Your task to perform on an android device: move a message to another label in the gmail app Image 0: 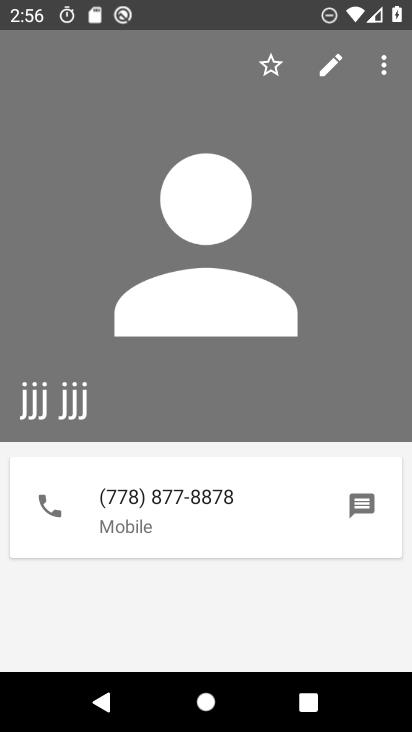
Step 0: press home button
Your task to perform on an android device: move a message to another label in the gmail app Image 1: 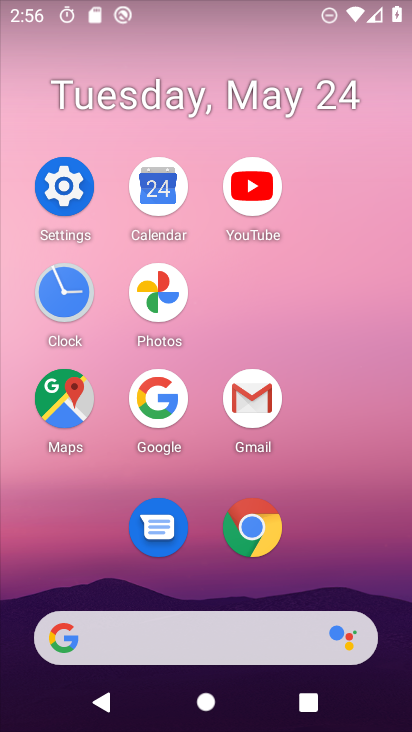
Step 1: click (256, 398)
Your task to perform on an android device: move a message to another label in the gmail app Image 2: 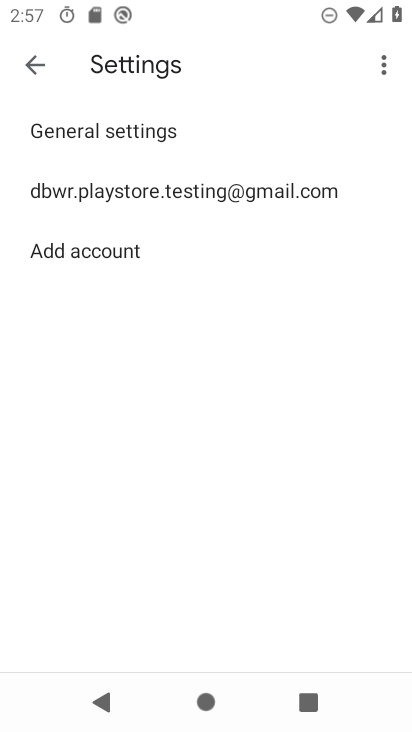
Step 2: click (42, 59)
Your task to perform on an android device: move a message to another label in the gmail app Image 3: 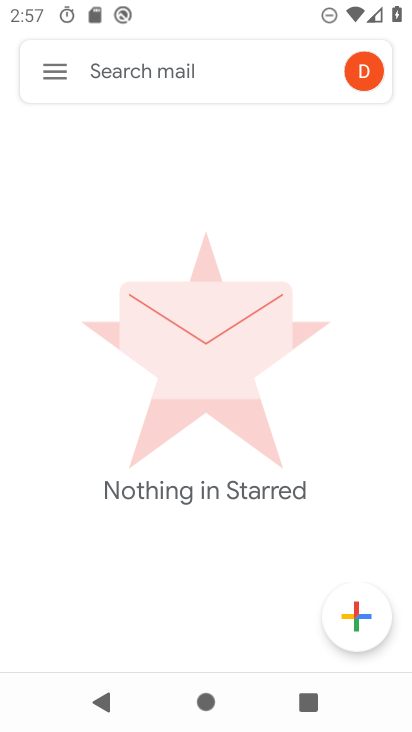
Step 3: click (68, 84)
Your task to perform on an android device: move a message to another label in the gmail app Image 4: 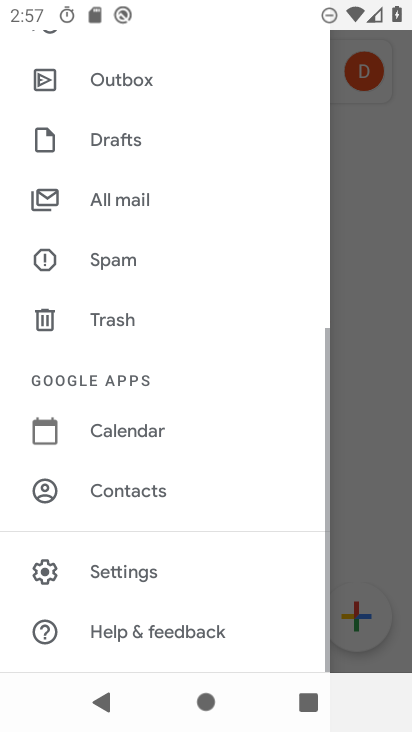
Step 4: drag from (221, 560) to (254, 405)
Your task to perform on an android device: move a message to another label in the gmail app Image 5: 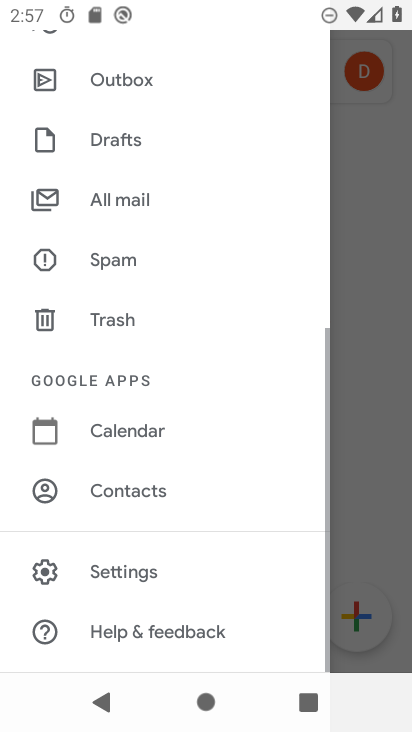
Step 5: click (198, 194)
Your task to perform on an android device: move a message to another label in the gmail app Image 6: 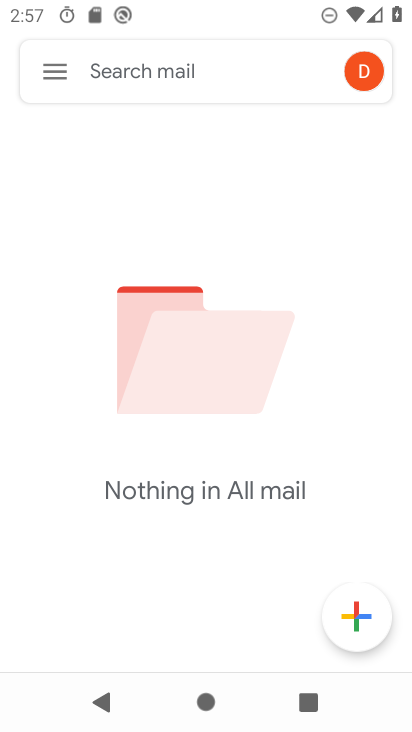
Step 6: task complete